Your task to perform on an android device: allow notifications from all sites in the chrome app Image 0: 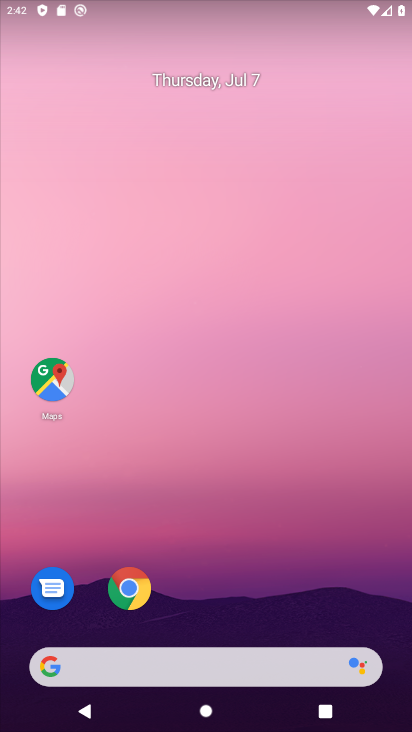
Step 0: click (124, 580)
Your task to perform on an android device: allow notifications from all sites in the chrome app Image 1: 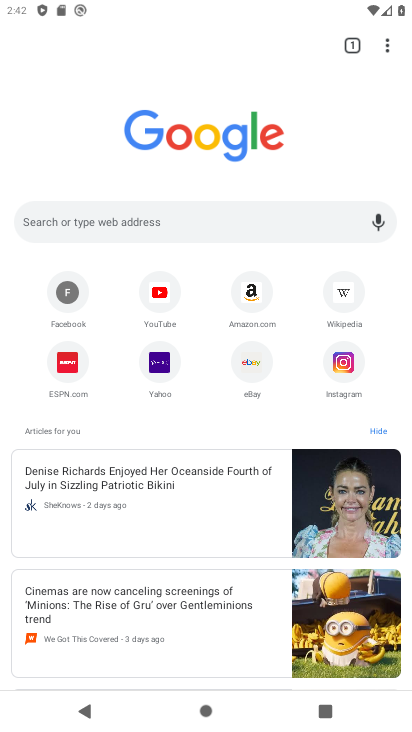
Step 1: click (385, 58)
Your task to perform on an android device: allow notifications from all sites in the chrome app Image 2: 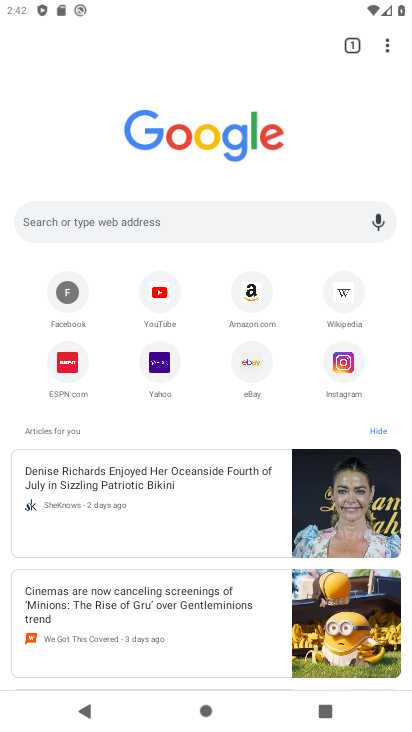
Step 2: click (384, 49)
Your task to perform on an android device: allow notifications from all sites in the chrome app Image 3: 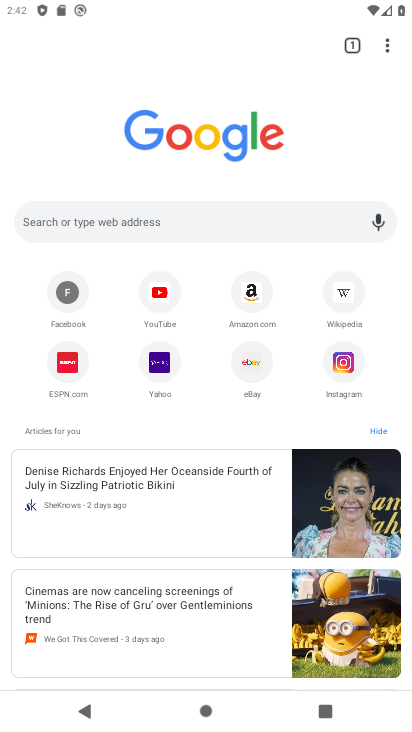
Step 3: click (384, 41)
Your task to perform on an android device: allow notifications from all sites in the chrome app Image 4: 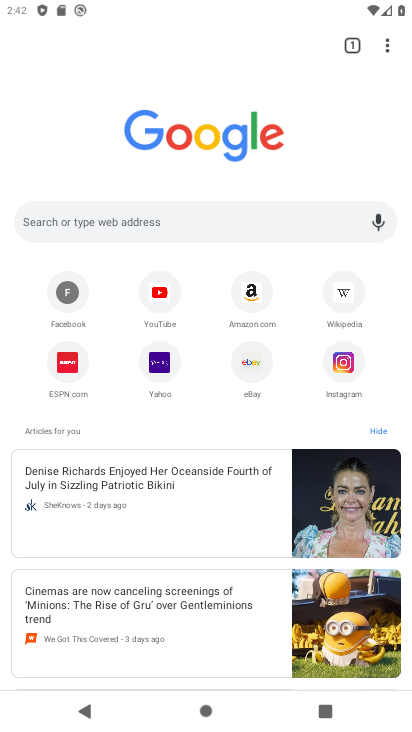
Step 4: click (384, 41)
Your task to perform on an android device: allow notifications from all sites in the chrome app Image 5: 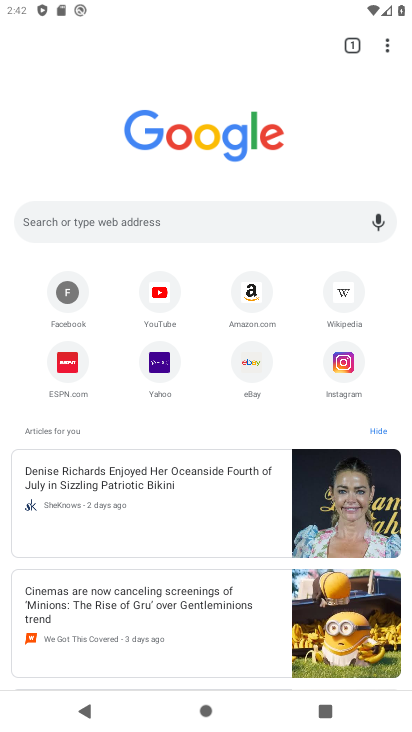
Step 5: click (393, 45)
Your task to perform on an android device: allow notifications from all sites in the chrome app Image 6: 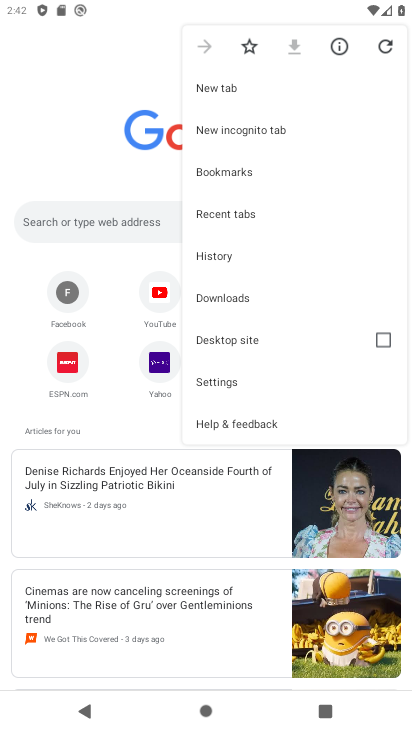
Step 6: click (230, 377)
Your task to perform on an android device: allow notifications from all sites in the chrome app Image 7: 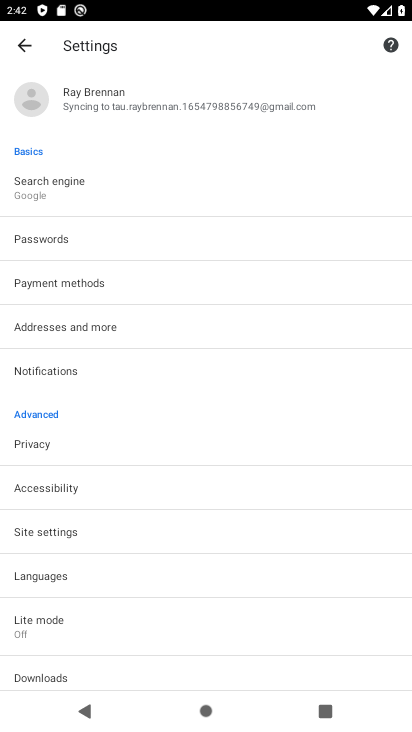
Step 7: click (49, 536)
Your task to perform on an android device: allow notifications from all sites in the chrome app Image 8: 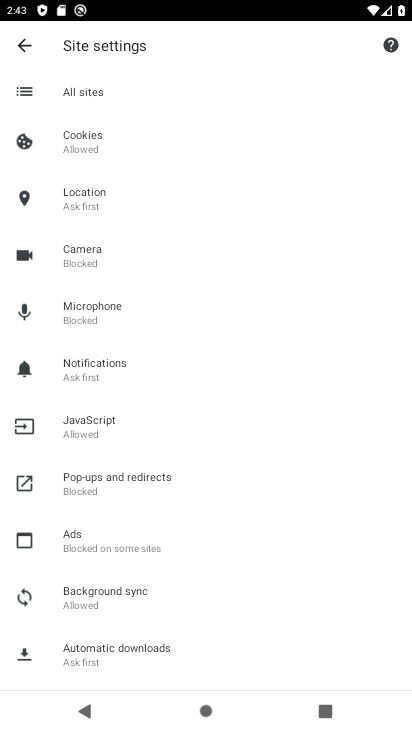
Step 8: click (98, 363)
Your task to perform on an android device: allow notifications from all sites in the chrome app Image 9: 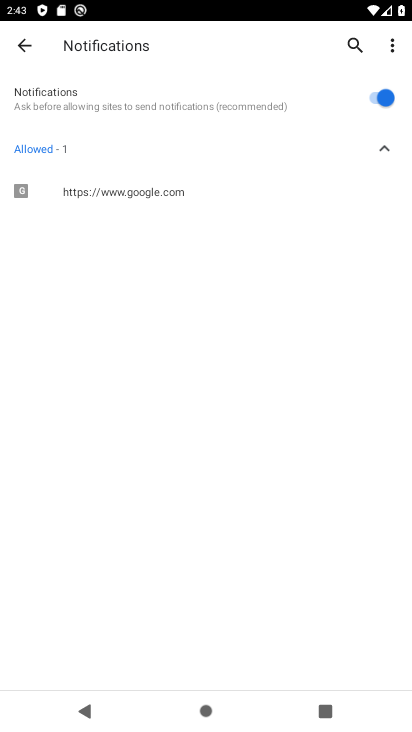
Step 9: task complete